Your task to perform on an android device: set the timer Image 0: 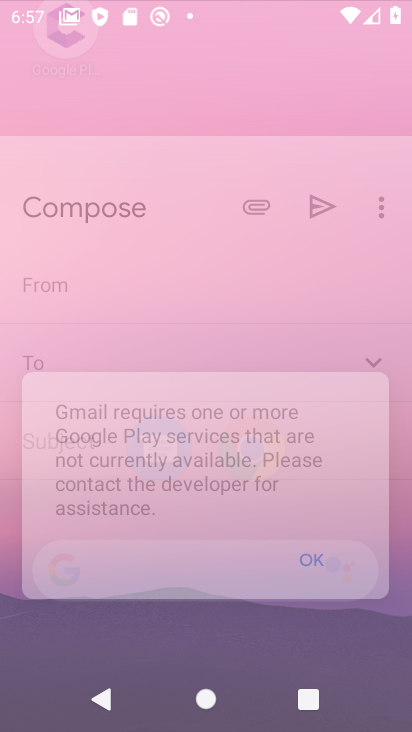
Step 0: press home button
Your task to perform on an android device: set the timer Image 1: 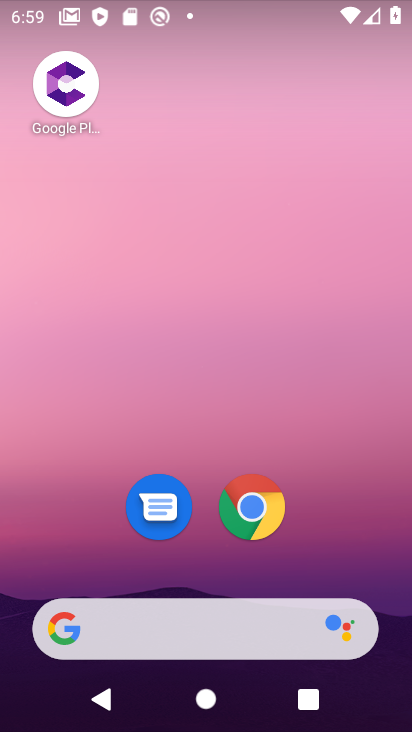
Step 1: drag from (258, 615) to (186, 9)
Your task to perform on an android device: set the timer Image 2: 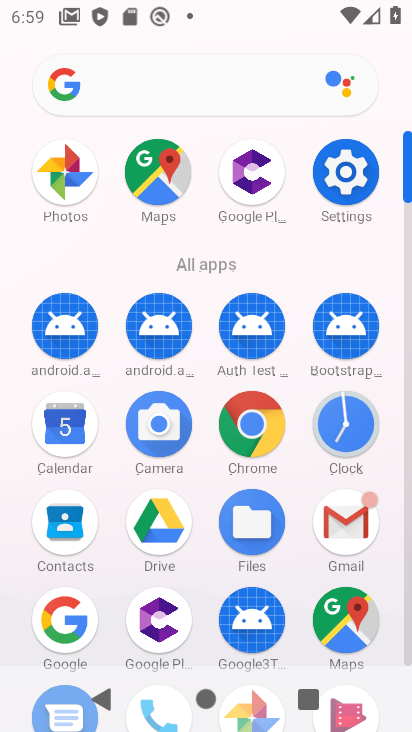
Step 2: click (338, 445)
Your task to perform on an android device: set the timer Image 3: 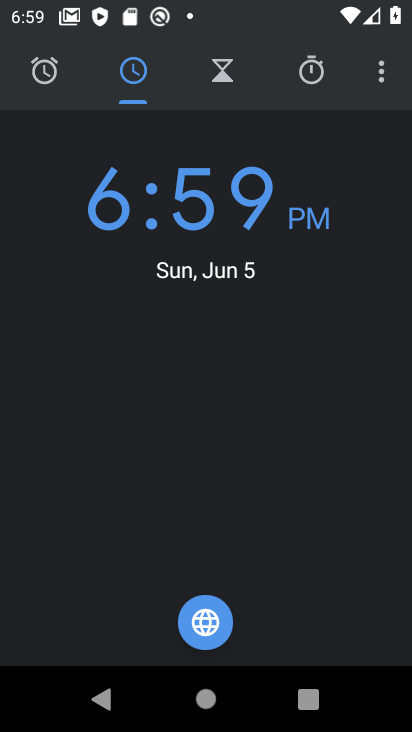
Step 3: click (229, 65)
Your task to perform on an android device: set the timer Image 4: 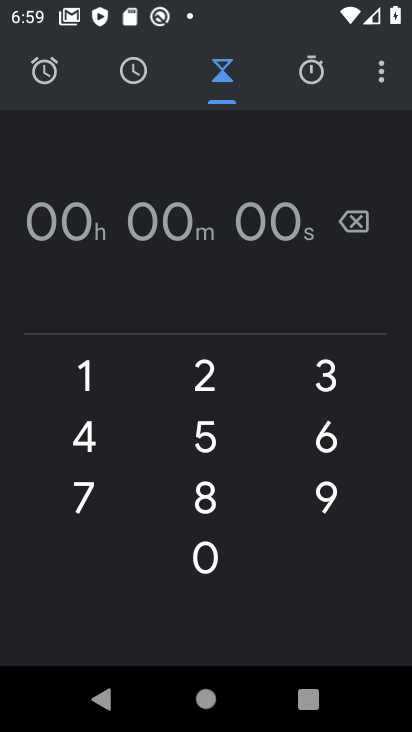
Step 4: click (187, 484)
Your task to perform on an android device: set the timer Image 5: 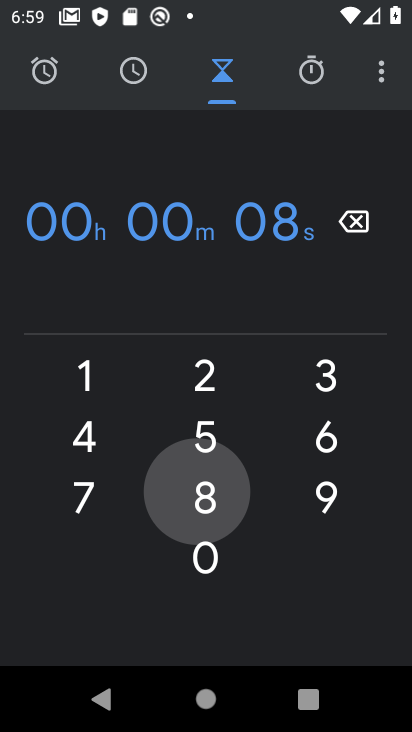
Step 5: click (86, 428)
Your task to perform on an android device: set the timer Image 6: 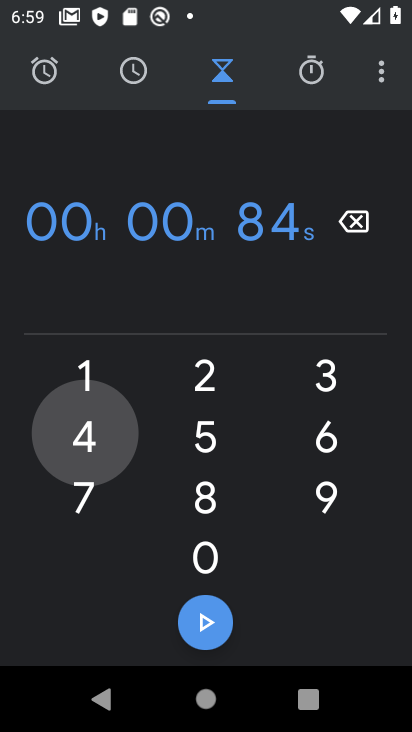
Step 6: click (170, 380)
Your task to perform on an android device: set the timer Image 7: 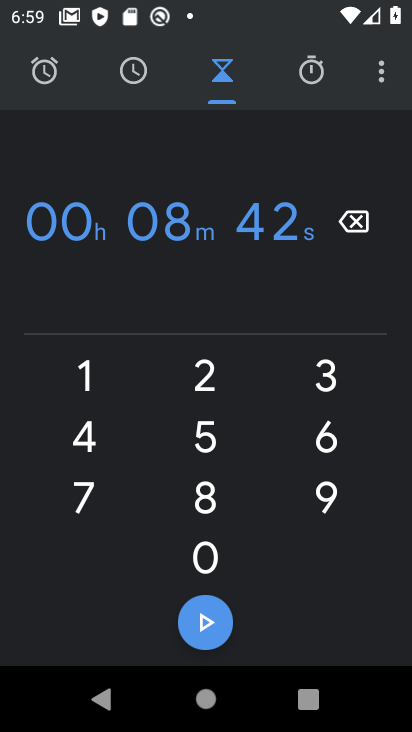
Step 7: click (200, 441)
Your task to perform on an android device: set the timer Image 8: 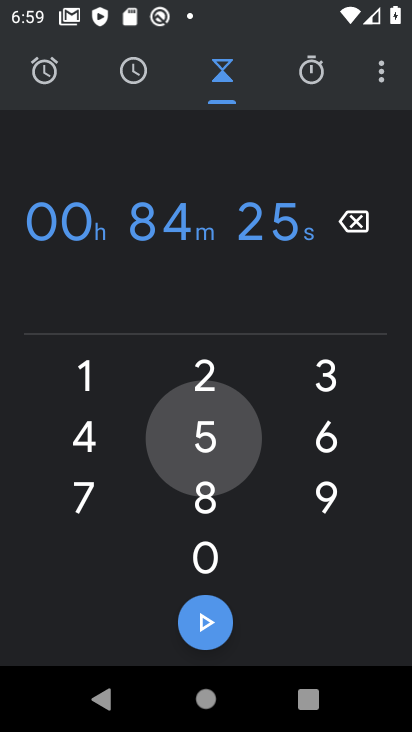
Step 8: task complete